Your task to perform on an android device: stop showing notifications on the lock screen Image 0: 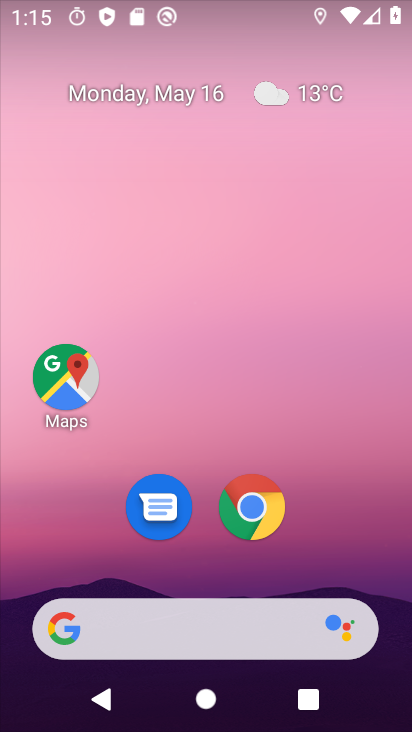
Step 0: drag from (191, 549) to (225, 133)
Your task to perform on an android device: stop showing notifications on the lock screen Image 1: 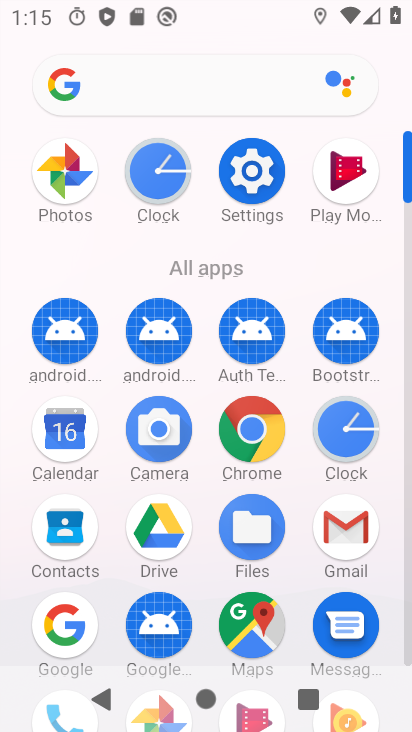
Step 1: click (242, 170)
Your task to perform on an android device: stop showing notifications on the lock screen Image 2: 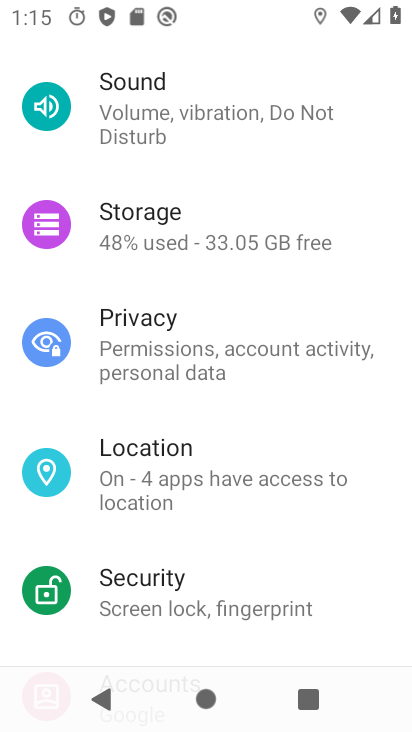
Step 2: drag from (196, 258) to (196, 559)
Your task to perform on an android device: stop showing notifications on the lock screen Image 3: 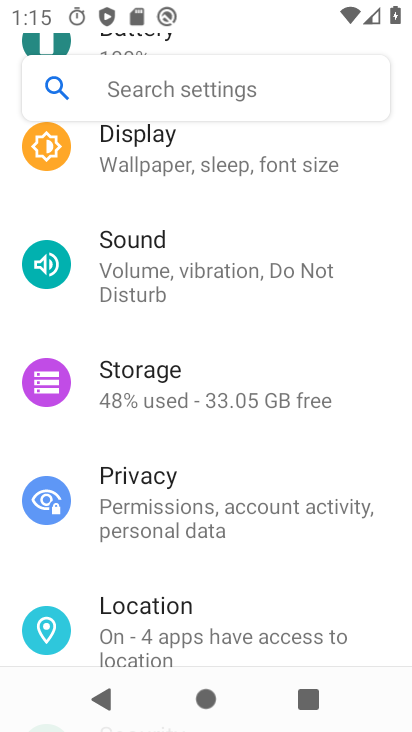
Step 3: drag from (180, 246) to (205, 554)
Your task to perform on an android device: stop showing notifications on the lock screen Image 4: 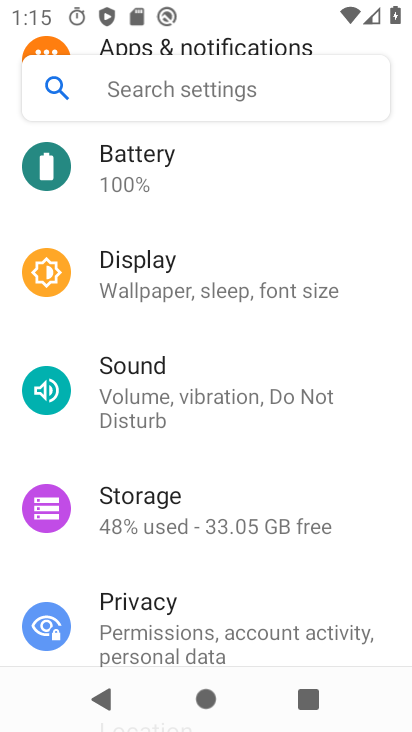
Step 4: drag from (172, 330) to (188, 416)
Your task to perform on an android device: stop showing notifications on the lock screen Image 5: 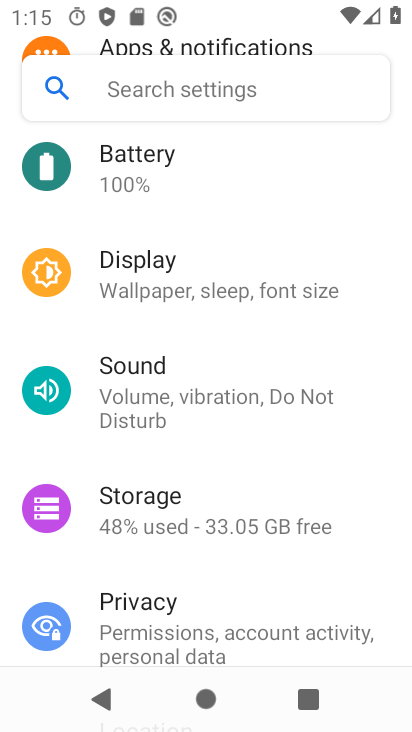
Step 5: drag from (139, 247) to (166, 535)
Your task to perform on an android device: stop showing notifications on the lock screen Image 6: 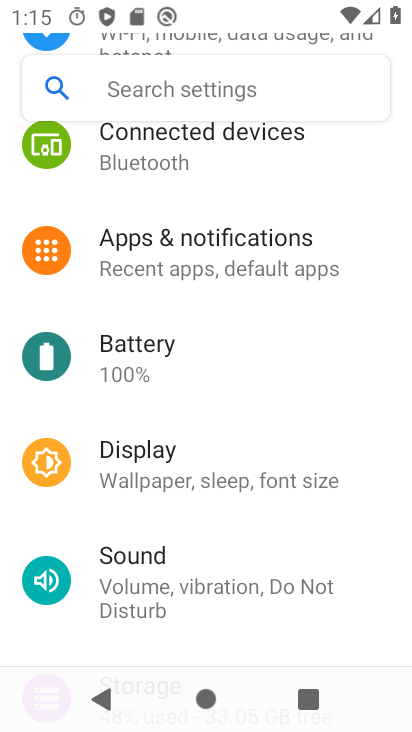
Step 6: click (171, 256)
Your task to perform on an android device: stop showing notifications on the lock screen Image 7: 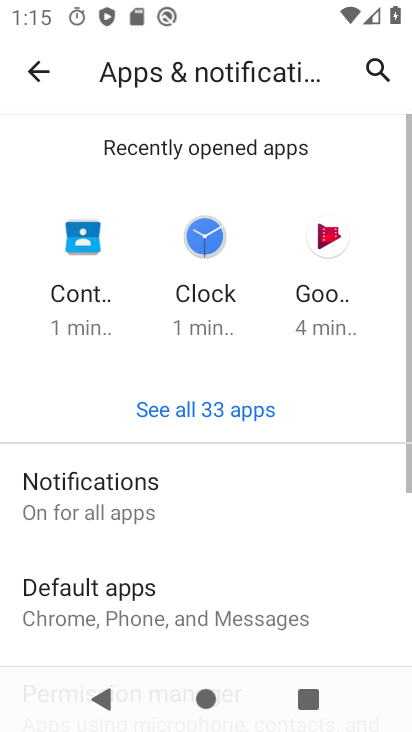
Step 7: click (133, 497)
Your task to perform on an android device: stop showing notifications on the lock screen Image 8: 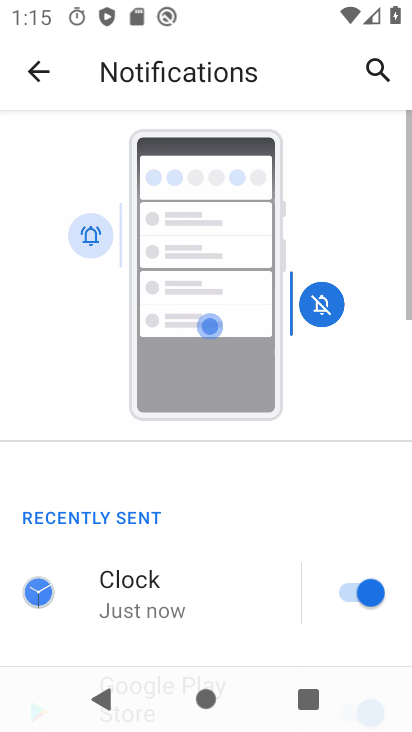
Step 8: drag from (187, 529) to (189, 76)
Your task to perform on an android device: stop showing notifications on the lock screen Image 9: 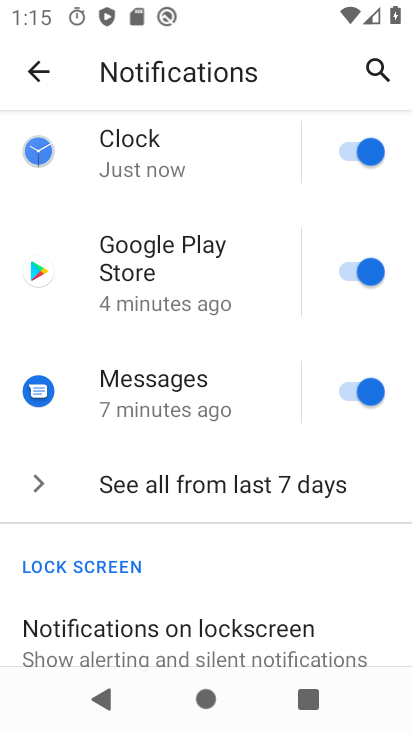
Step 9: click (140, 620)
Your task to perform on an android device: stop showing notifications on the lock screen Image 10: 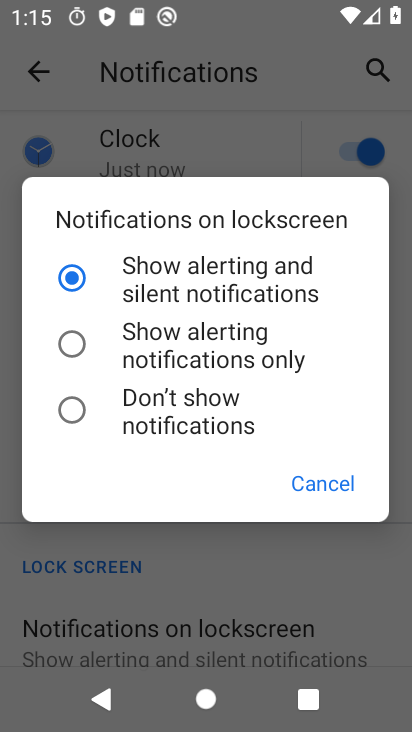
Step 10: click (73, 402)
Your task to perform on an android device: stop showing notifications on the lock screen Image 11: 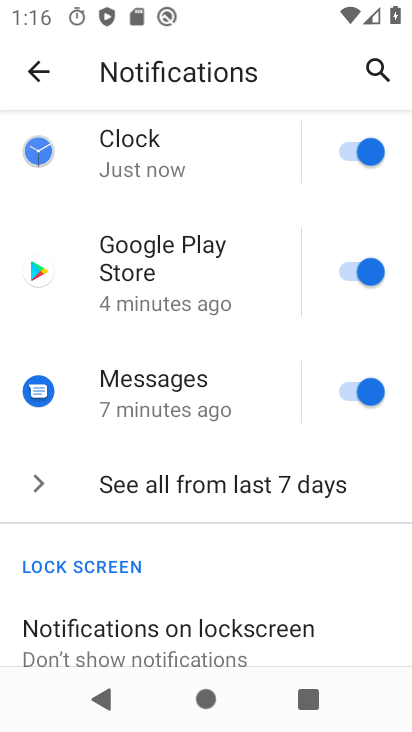
Step 11: task complete